Your task to perform on an android device: toggle improve location accuracy Image 0: 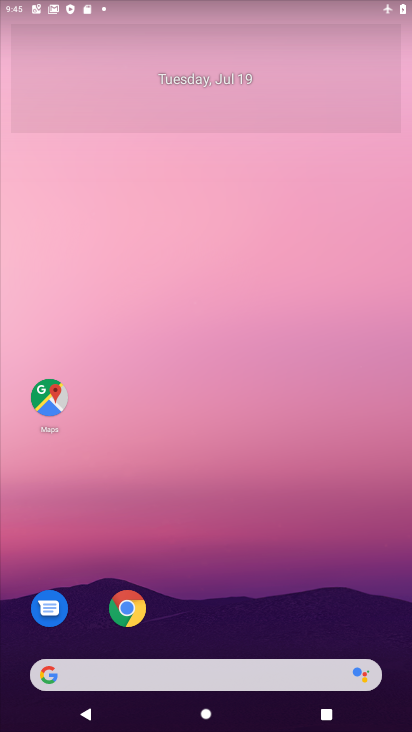
Step 0: drag from (312, 589) to (322, 66)
Your task to perform on an android device: toggle improve location accuracy Image 1: 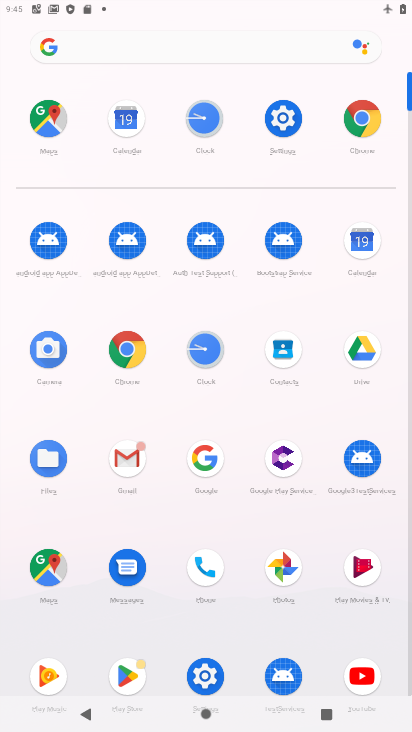
Step 1: click (285, 117)
Your task to perform on an android device: toggle improve location accuracy Image 2: 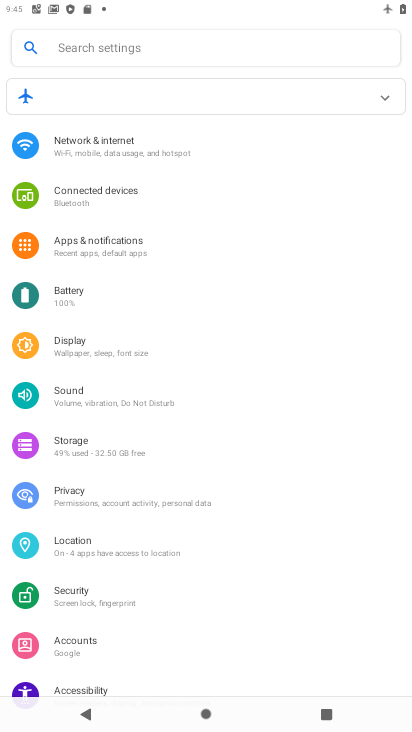
Step 2: click (75, 541)
Your task to perform on an android device: toggle improve location accuracy Image 3: 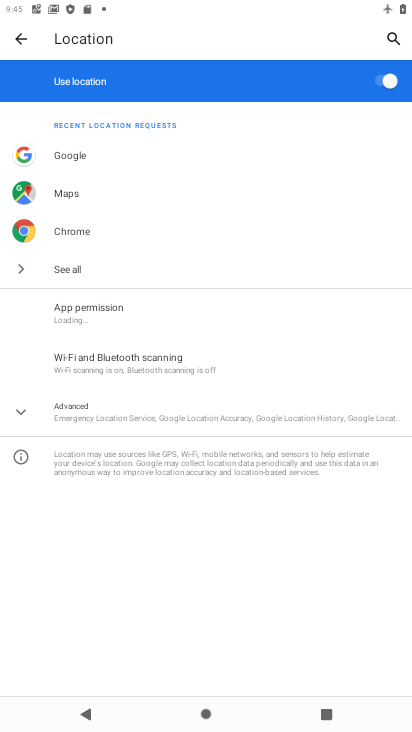
Step 3: click (98, 414)
Your task to perform on an android device: toggle improve location accuracy Image 4: 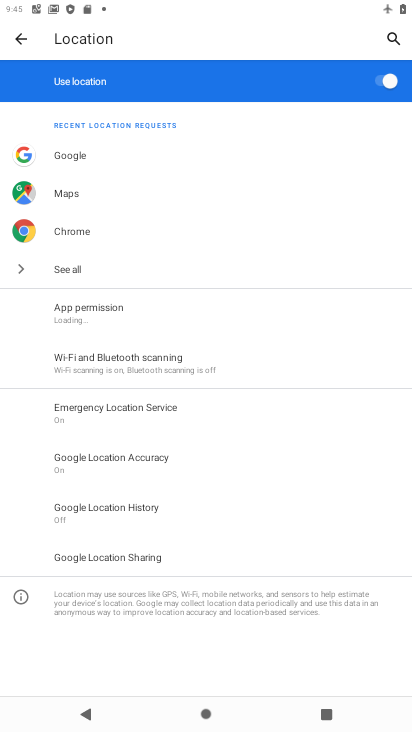
Step 4: click (115, 463)
Your task to perform on an android device: toggle improve location accuracy Image 5: 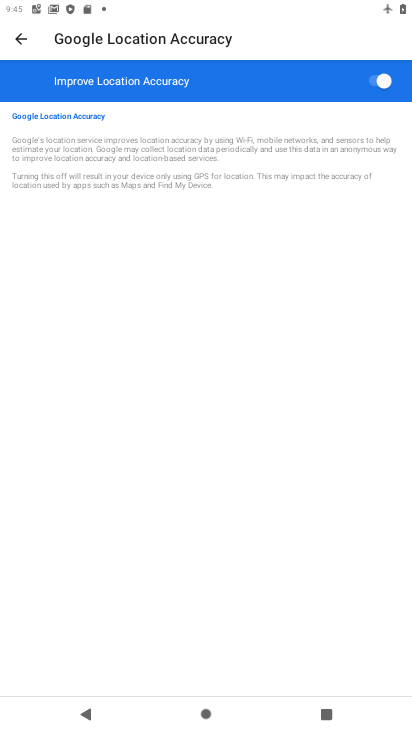
Step 5: click (23, 37)
Your task to perform on an android device: toggle improve location accuracy Image 6: 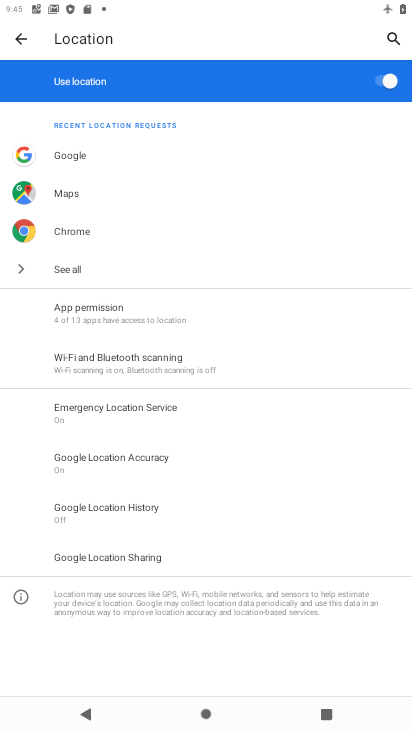
Step 6: click (144, 464)
Your task to perform on an android device: toggle improve location accuracy Image 7: 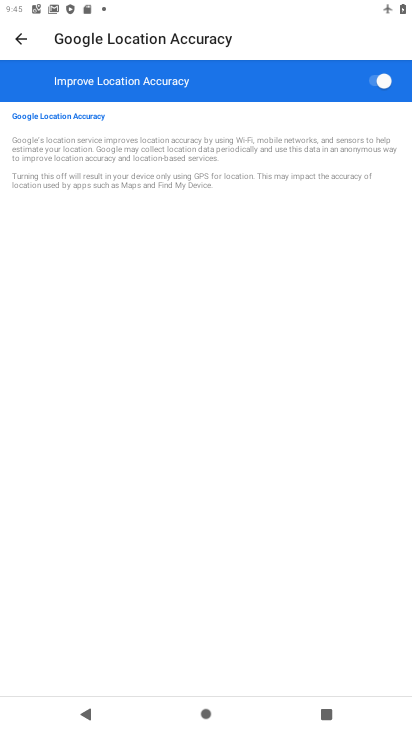
Step 7: click (375, 73)
Your task to perform on an android device: toggle improve location accuracy Image 8: 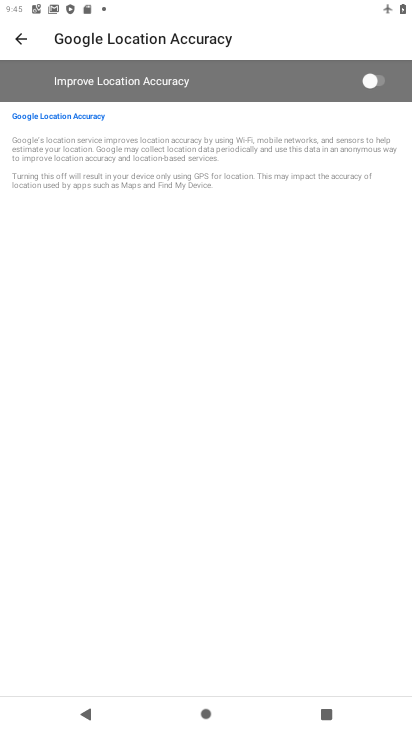
Step 8: task complete